Your task to perform on an android device: Open the stopwatch Image 0: 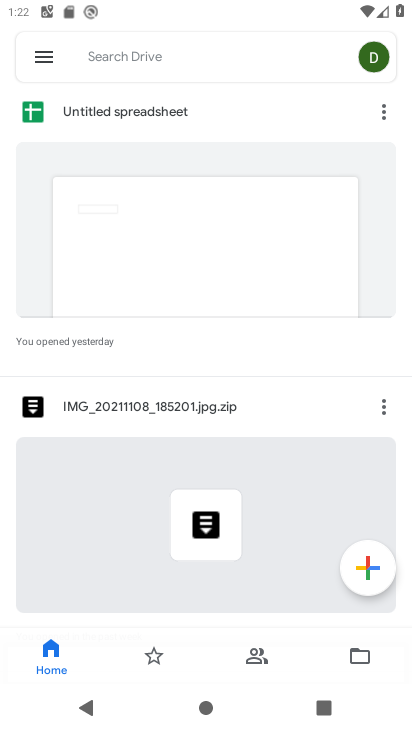
Step 0: press home button
Your task to perform on an android device: Open the stopwatch Image 1: 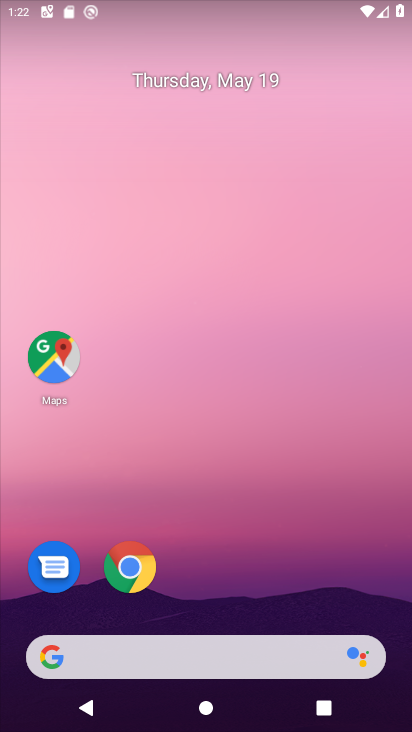
Step 1: drag from (212, 489) to (199, 262)
Your task to perform on an android device: Open the stopwatch Image 2: 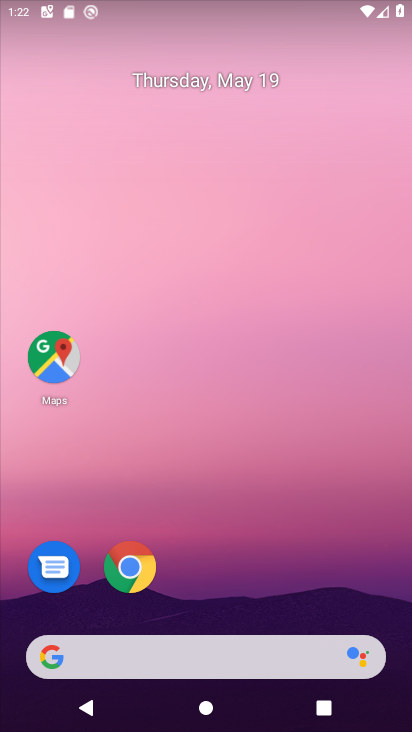
Step 2: drag from (368, 569) to (354, 2)
Your task to perform on an android device: Open the stopwatch Image 3: 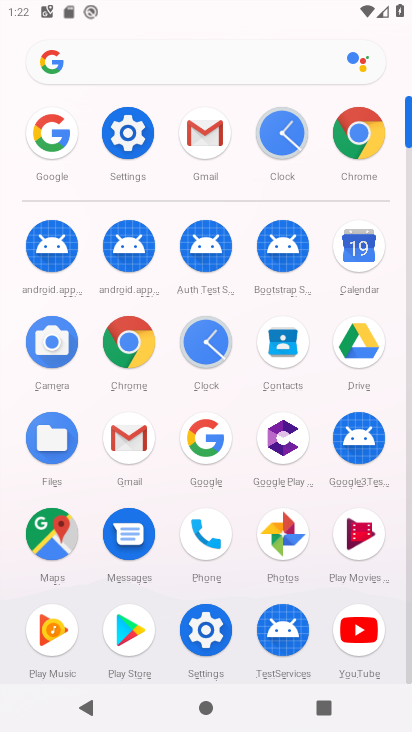
Step 3: click (274, 136)
Your task to perform on an android device: Open the stopwatch Image 4: 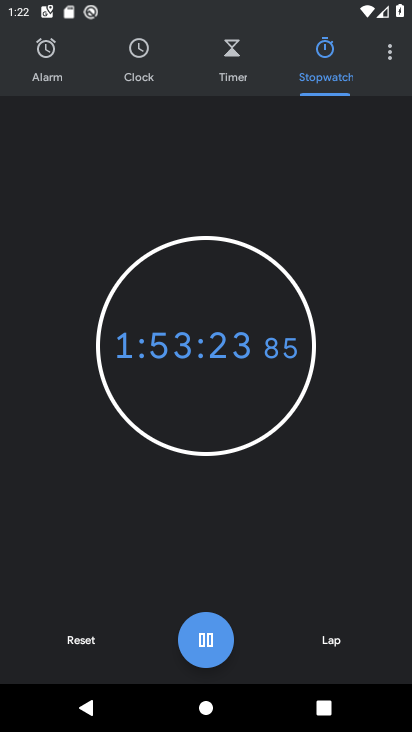
Step 4: task complete